Your task to perform on an android device: change keyboard looks Image 0: 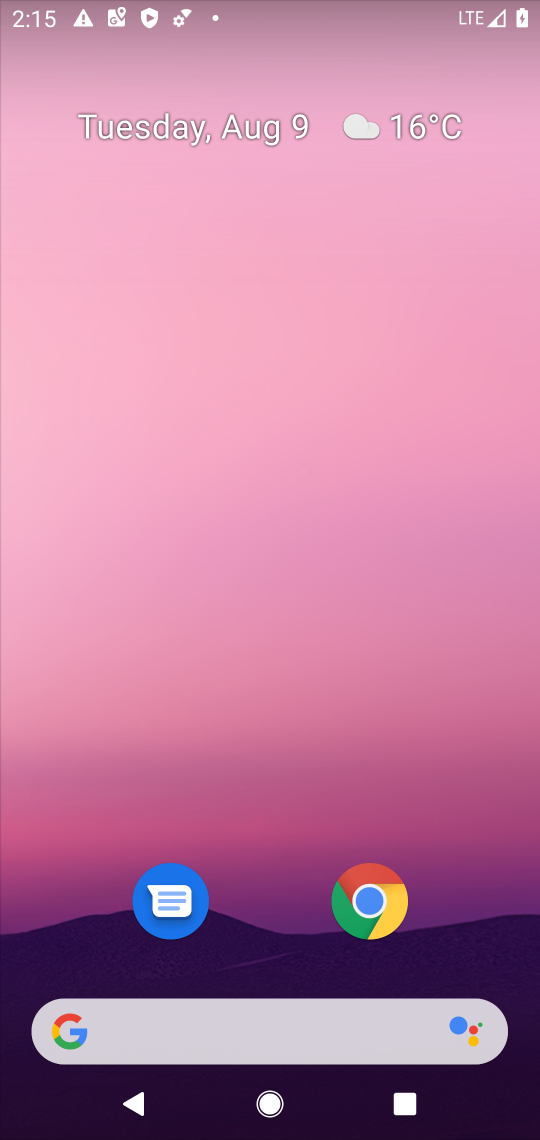
Step 0: drag from (496, 971) to (484, 125)
Your task to perform on an android device: change keyboard looks Image 1: 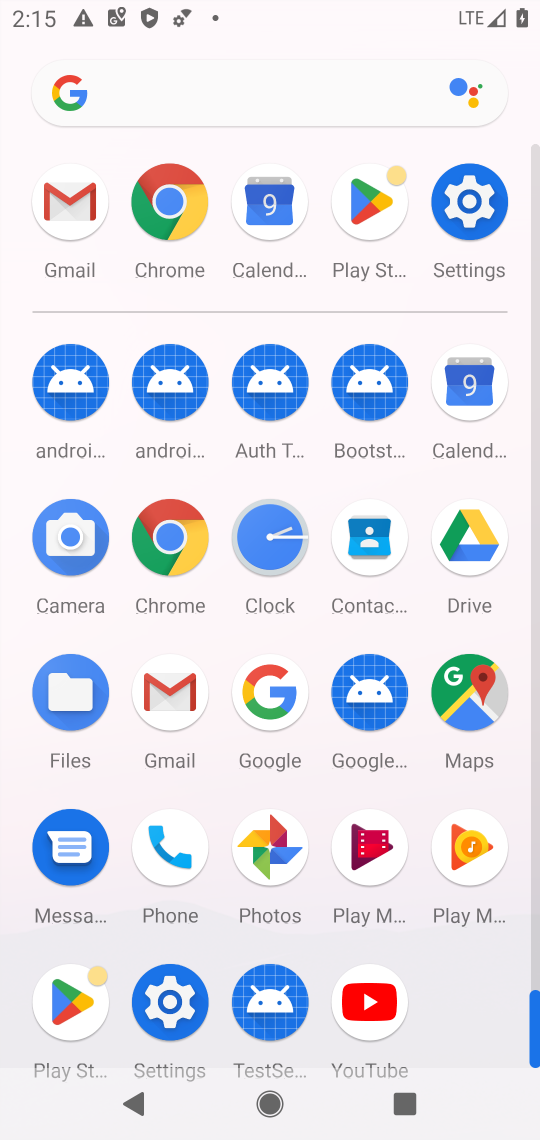
Step 1: click (169, 1004)
Your task to perform on an android device: change keyboard looks Image 2: 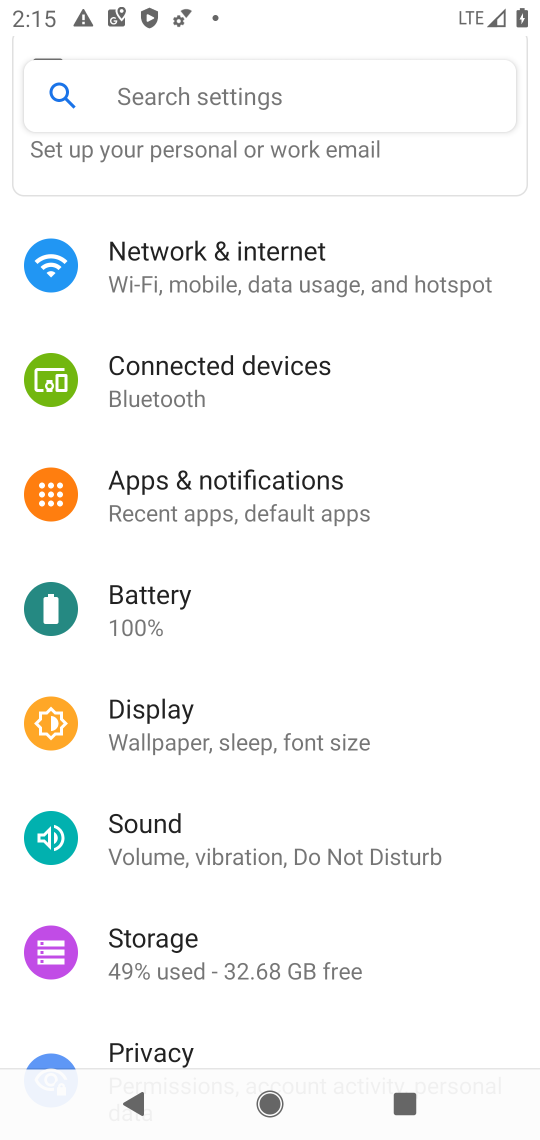
Step 2: drag from (441, 981) to (443, 319)
Your task to perform on an android device: change keyboard looks Image 3: 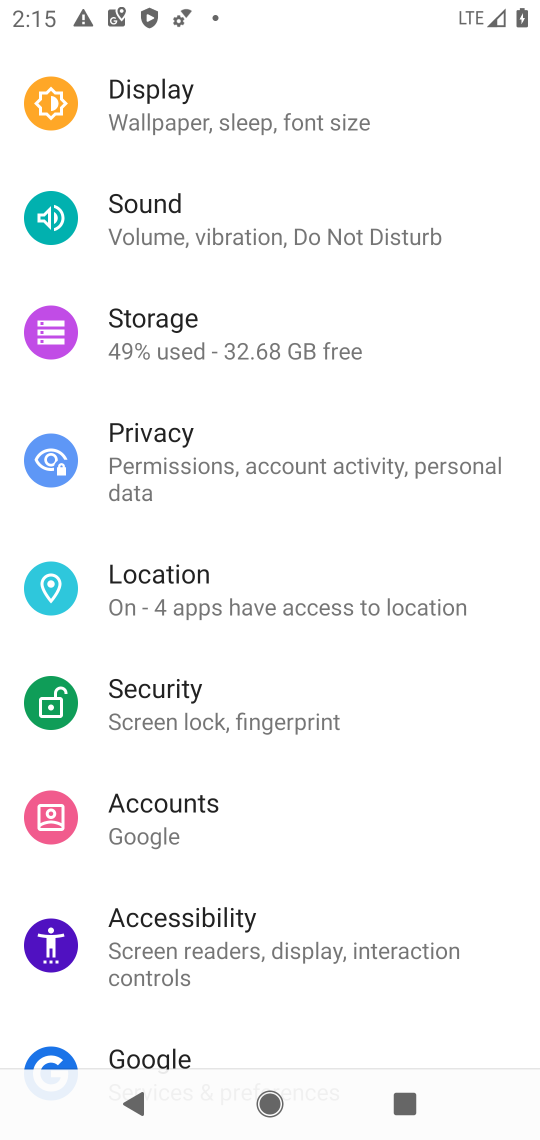
Step 3: drag from (427, 953) to (402, 486)
Your task to perform on an android device: change keyboard looks Image 4: 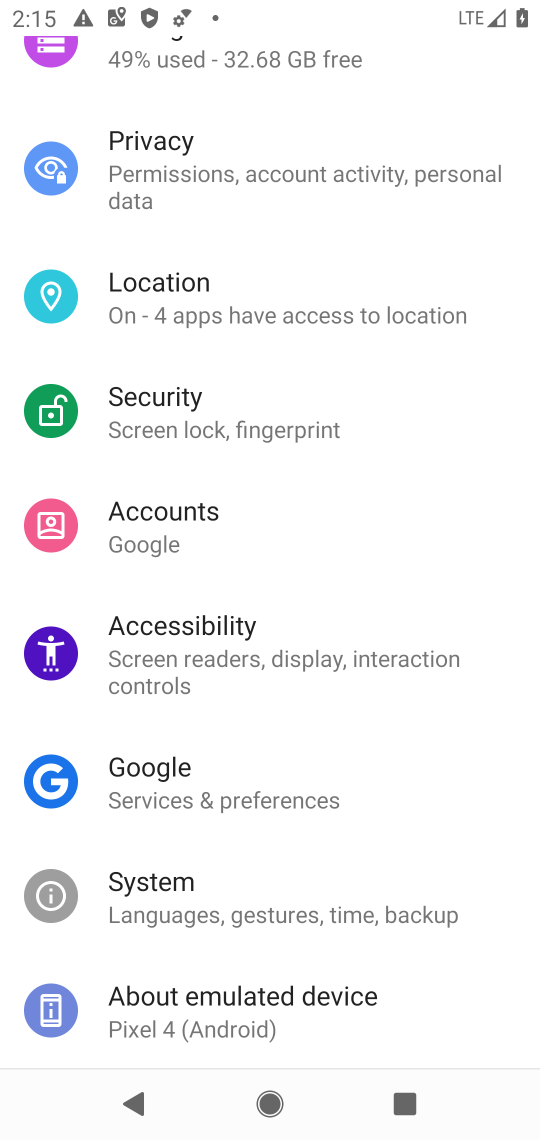
Step 4: drag from (384, 889) to (411, 467)
Your task to perform on an android device: change keyboard looks Image 5: 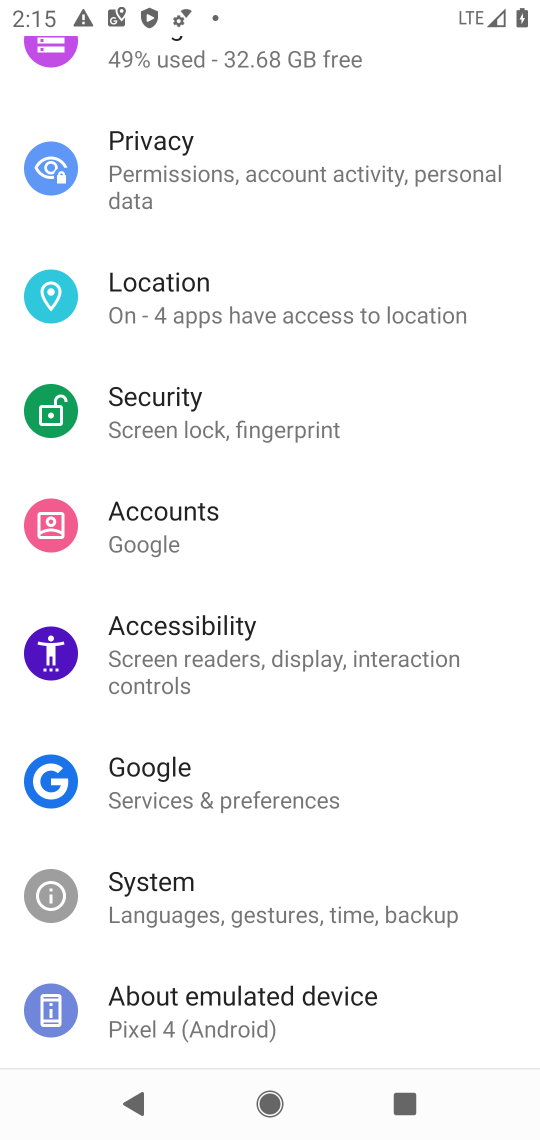
Step 5: click (149, 895)
Your task to perform on an android device: change keyboard looks Image 6: 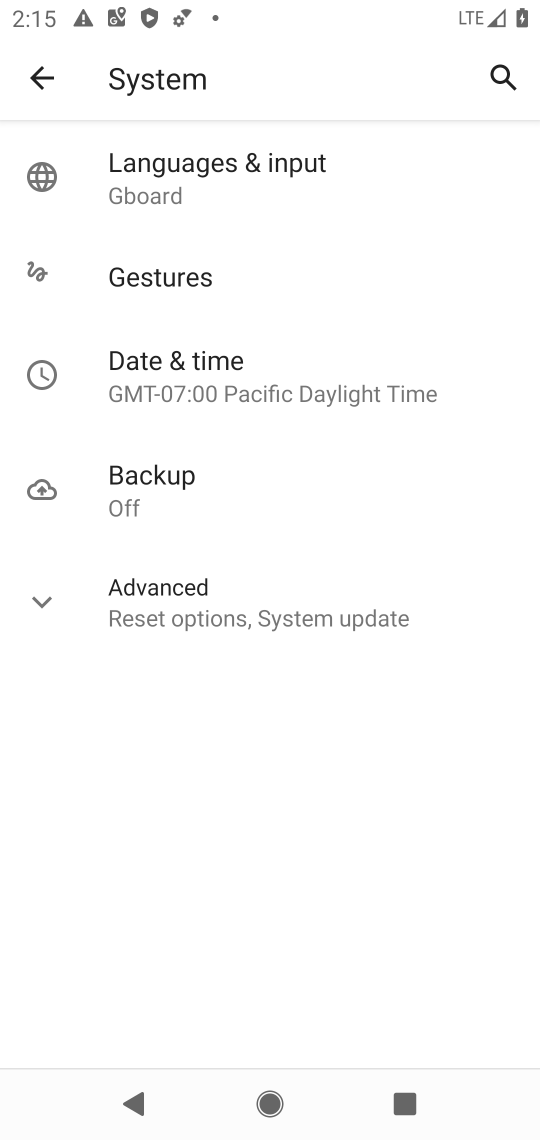
Step 6: click (58, 598)
Your task to perform on an android device: change keyboard looks Image 7: 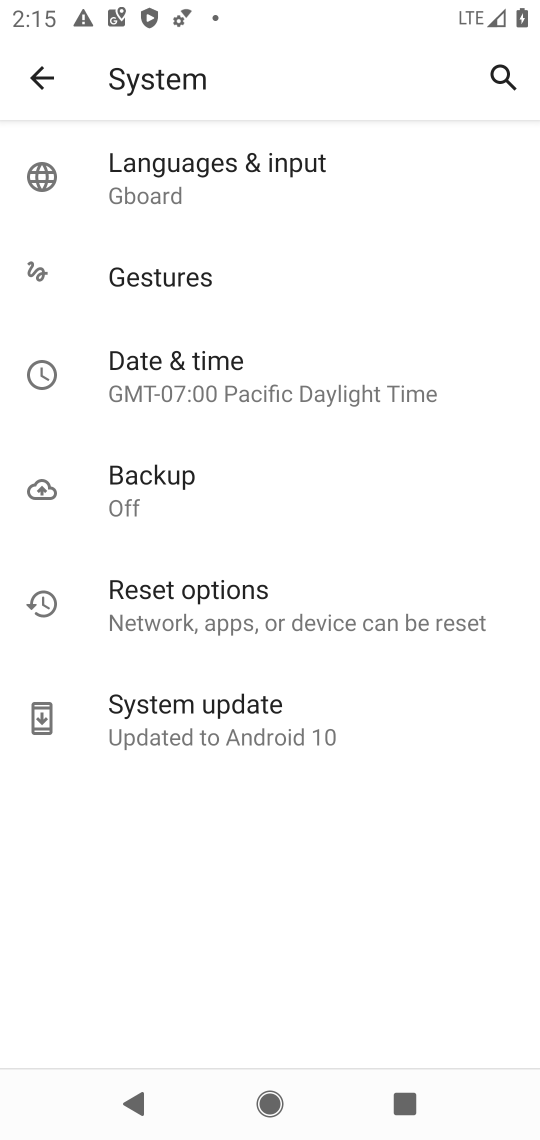
Step 7: click (149, 188)
Your task to perform on an android device: change keyboard looks Image 8: 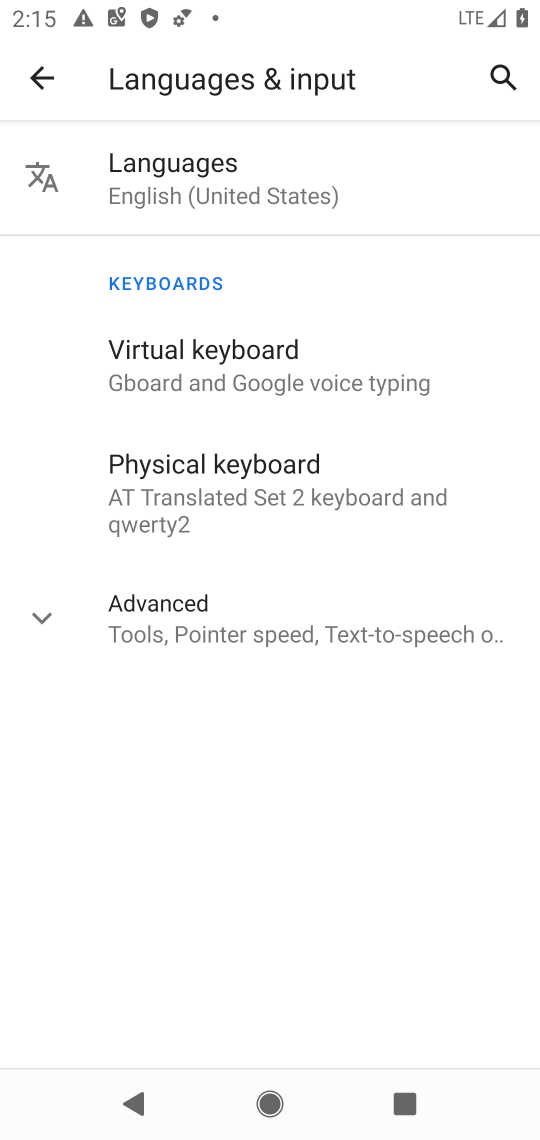
Step 8: click (196, 366)
Your task to perform on an android device: change keyboard looks Image 9: 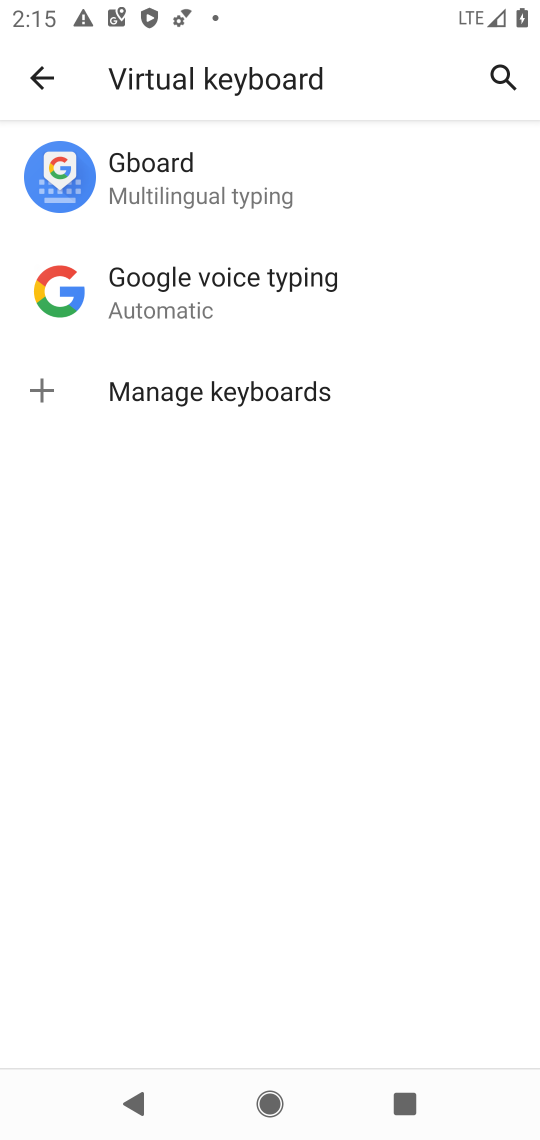
Step 9: click (178, 188)
Your task to perform on an android device: change keyboard looks Image 10: 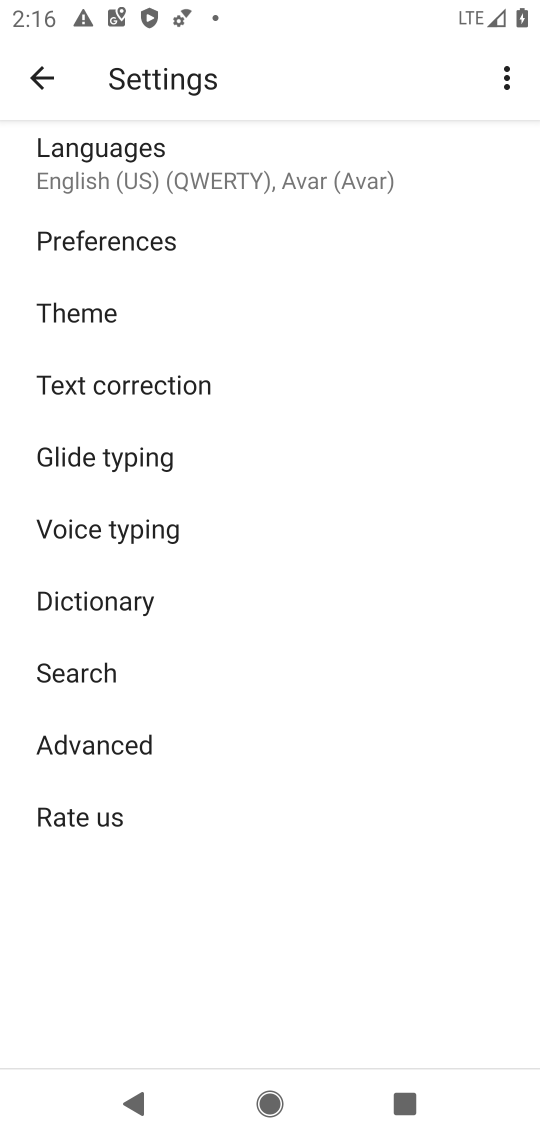
Step 10: click (111, 153)
Your task to perform on an android device: change keyboard looks Image 11: 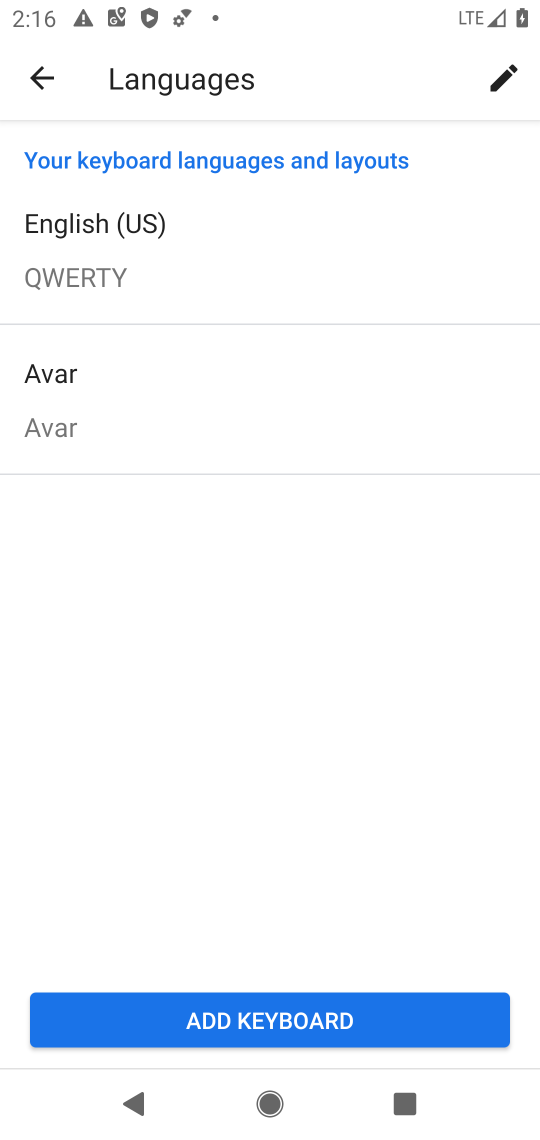
Step 11: click (79, 263)
Your task to perform on an android device: change keyboard looks Image 12: 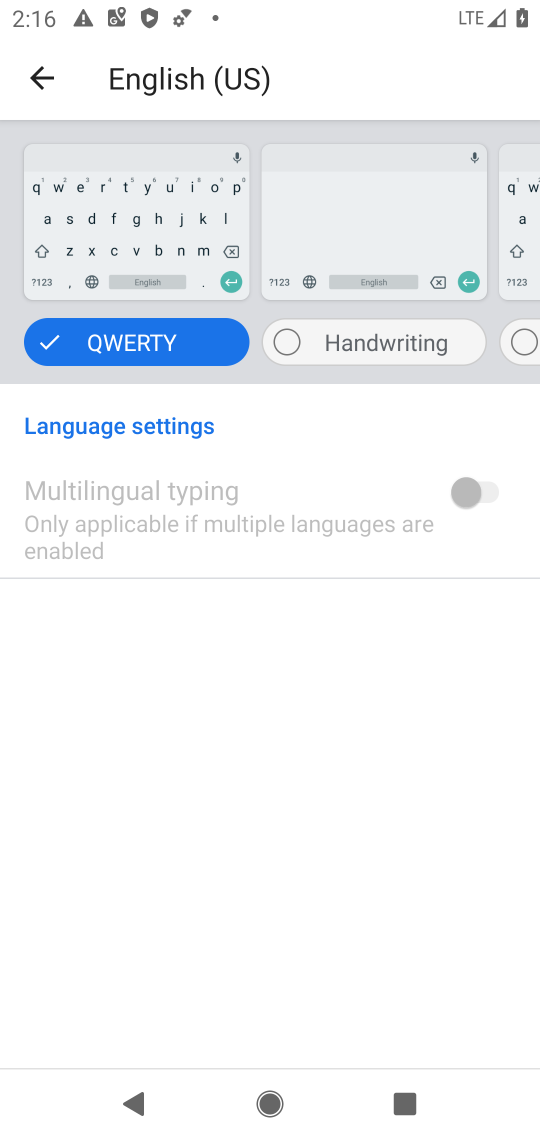
Step 12: drag from (372, 282) to (131, 279)
Your task to perform on an android device: change keyboard looks Image 13: 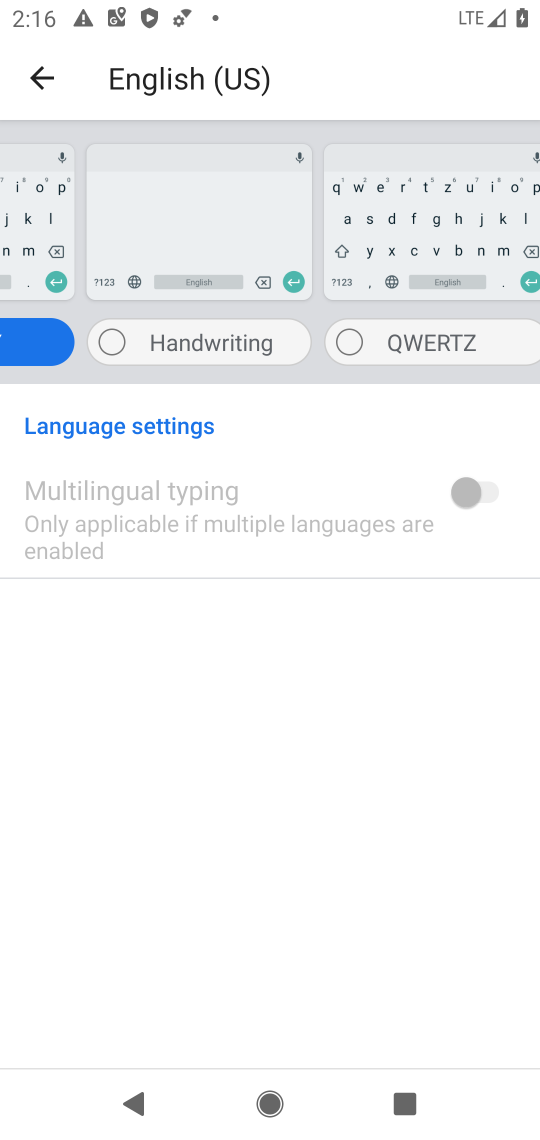
Step 13: click (349, 344)
Your task to perform on an android device: change keyboard looks Image 14: 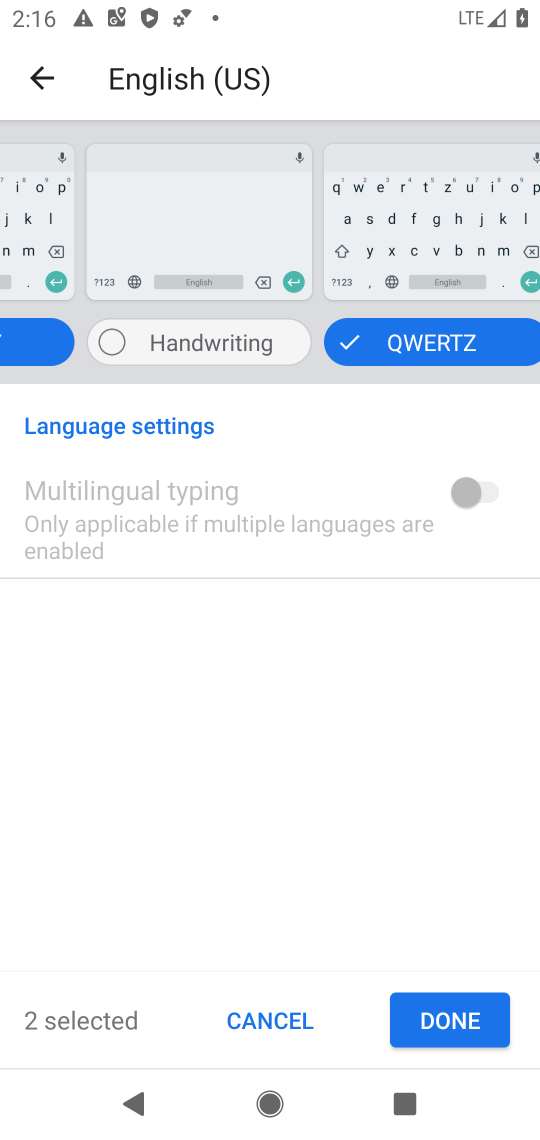
Step 14: click (445, 1021)
Your task to perform on an android device: change keyboard looks Image 15: 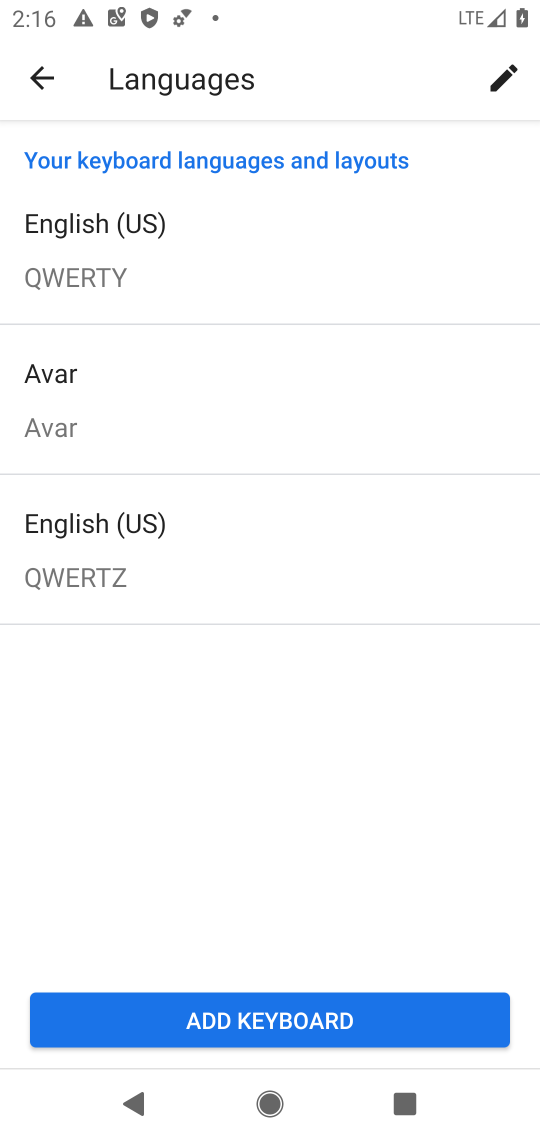
Step 15: click (252, 1011)
Your task to perform on an android device: change keyboard looks Image 16: 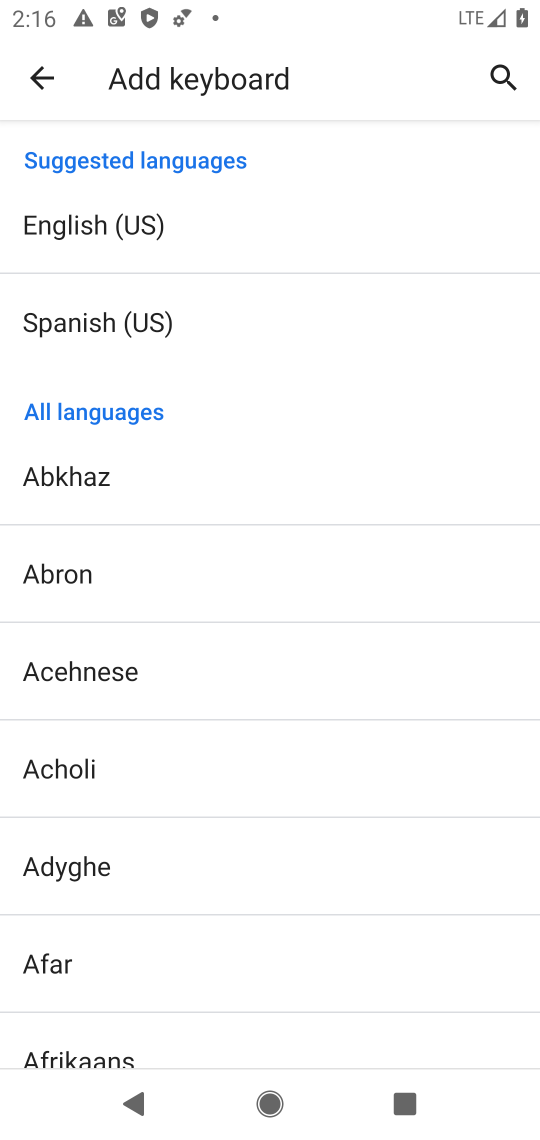
Step 16: click (49, 964)
Your task to perform on an android device: change keyboard looks Image 17: 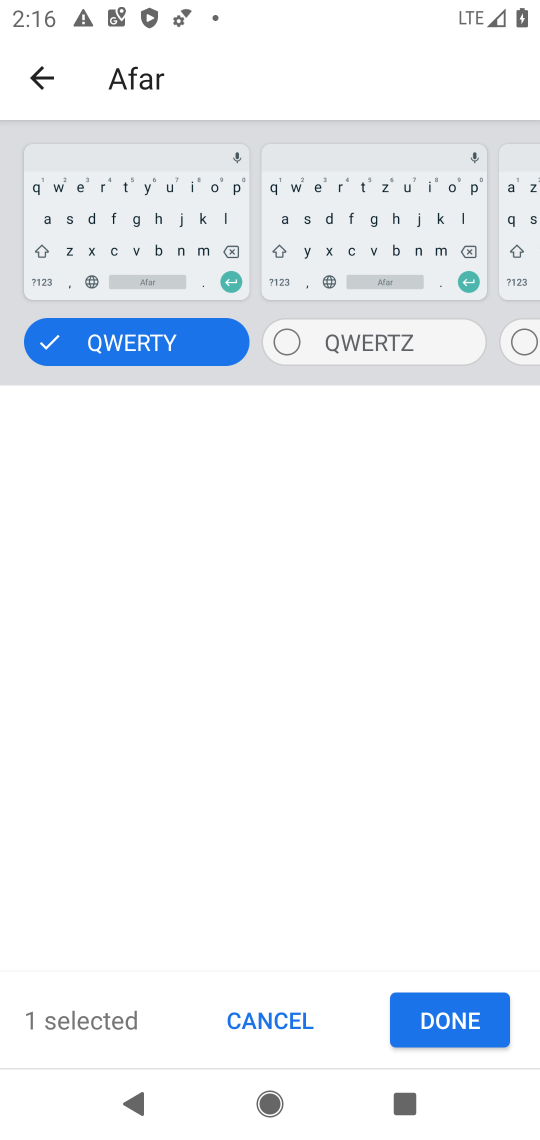
Step 17: click (463, 1014)
Your task to perform on an android device: change keyboard looks Image 18: 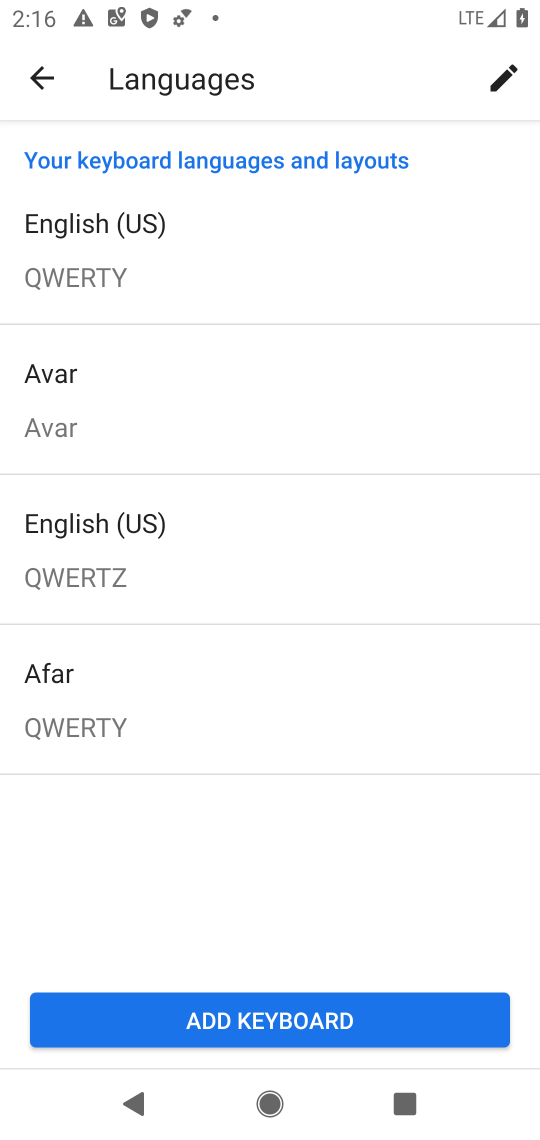
Step 18: task complete